Your task to perform on an android device: Open wifi settings Image 0: 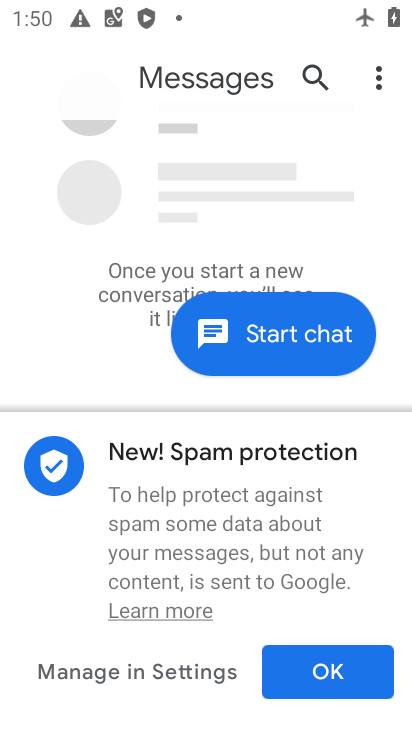
Step 0: press home button
Your task to perform on an android device: Open wifi settings Image 1: 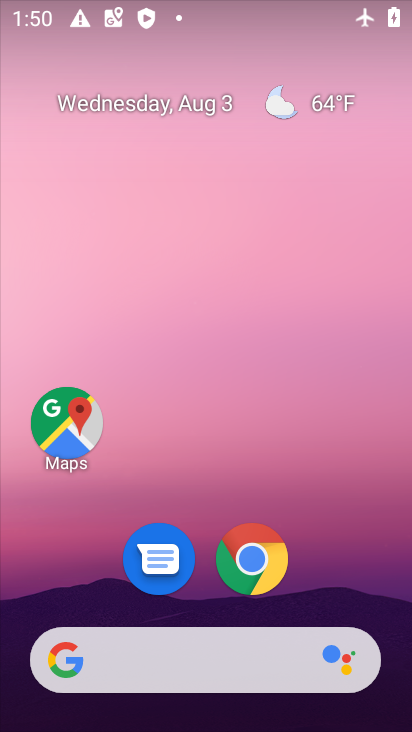
Step 1: drag from (203, 461) to (190, 149)
Your task to perform on an android device: Open wifi settings Image 2: 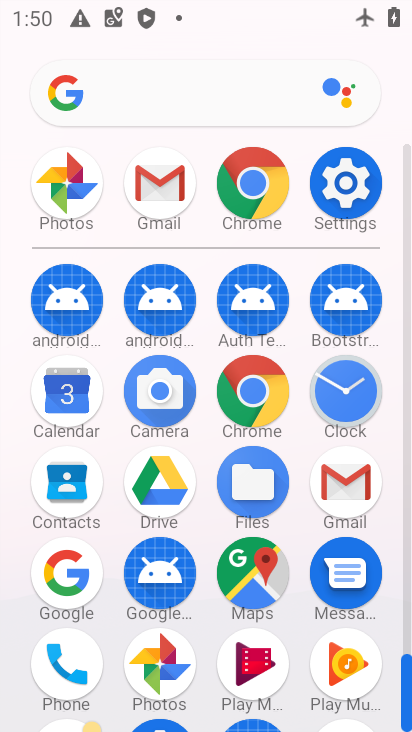
Step 2: click (355, 188)
Your task to perform on an android device: Open wifi settings Image 3: 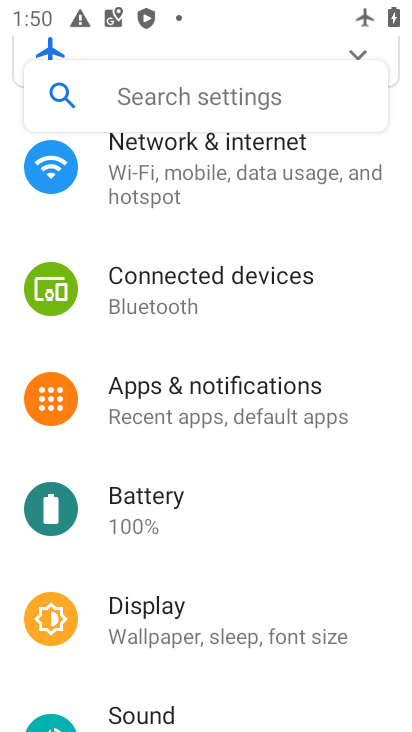
Step 3: drag from (216, 176) to (240, 570)
Your task to perform on an android device: Open wifi settings Image 4: 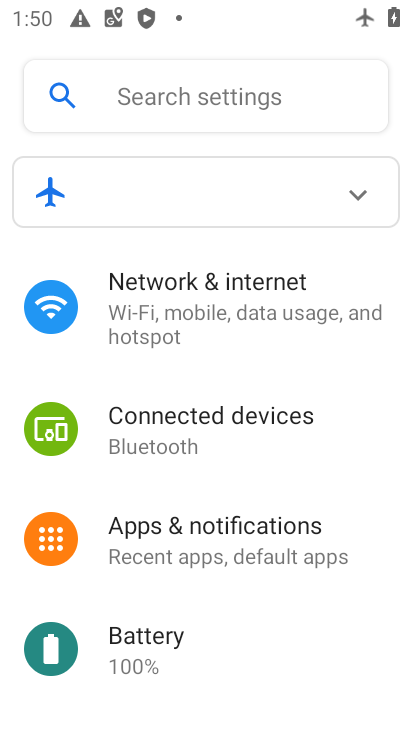
Step 4: click (178, 307)
Your task to perform on an android device: Open wifi settings Image 5: 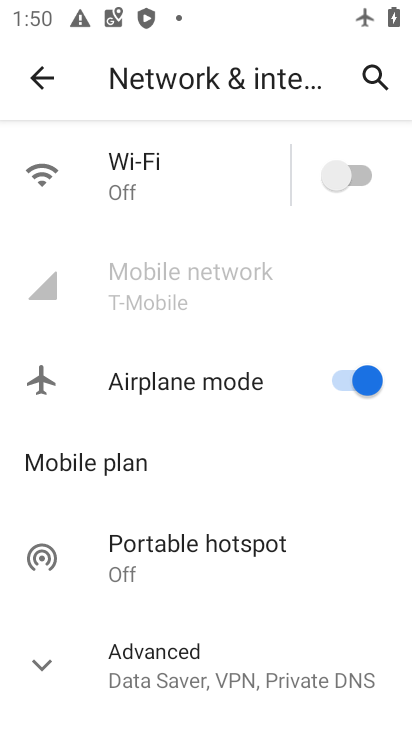
Step 5: click (128, 182)
Your task to perform on an android device: Open wifi settings Image 6: 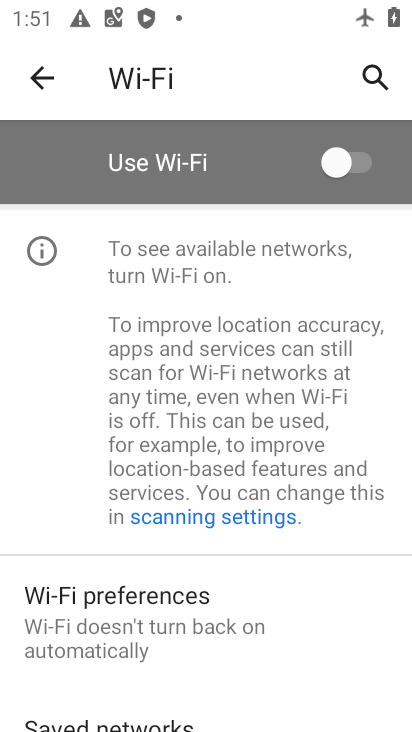
Step 6: task complete